Your task to perform on an android device: turn off location history Image 0: 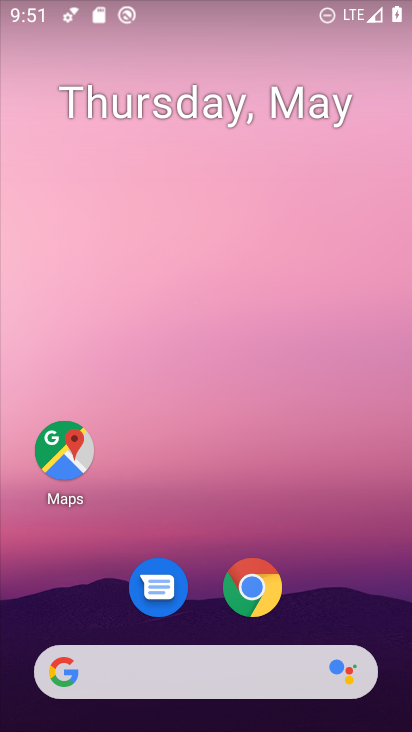
Step 0: click (58, 454)
Your task to perform on an android device: turn off location history Image 1: 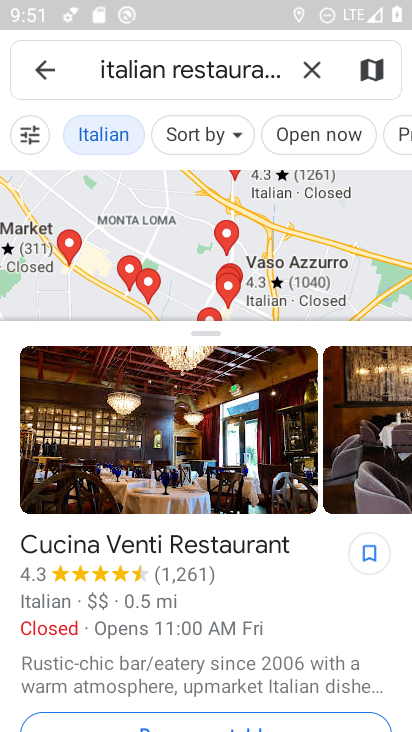
Step 1: click (309, 69)
Your task to perform on an android device: turn off location history Image 2: 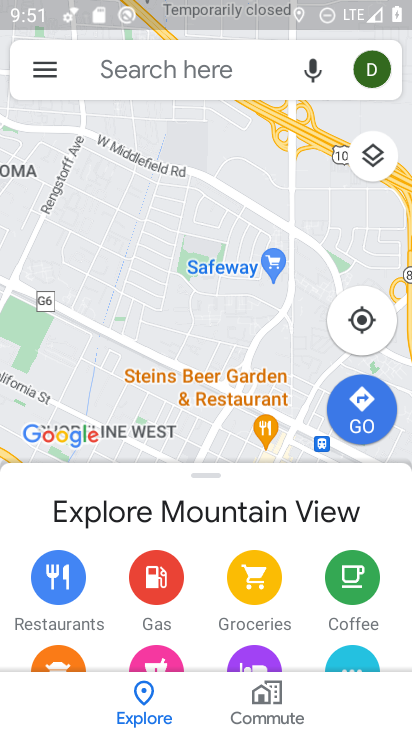
Step 2: click (50, 71)
Your task to perform on an android device: turn off location history Image 3: 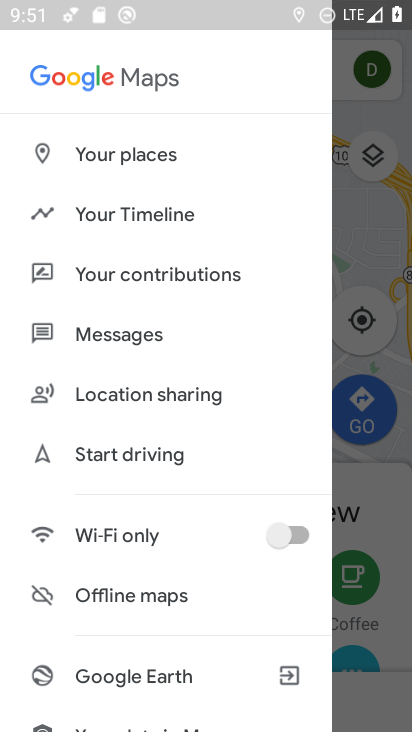
Step 3: click (125, 225)
Your task to perform on an android device: turn off location history Image 4: 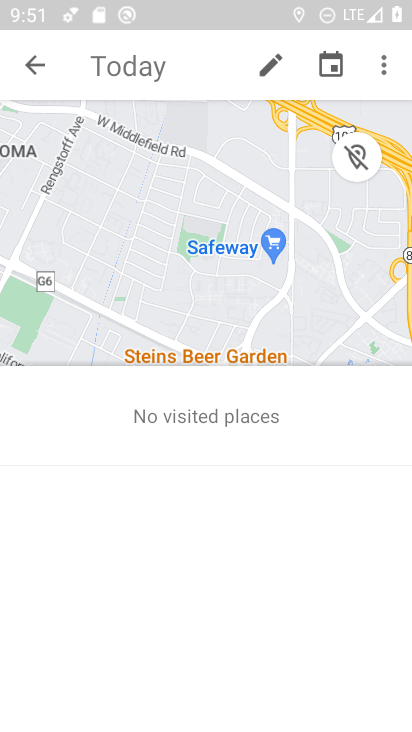
Step 4: click (387, 70)
Your task to perform on an android device: turn off location history Image 5: 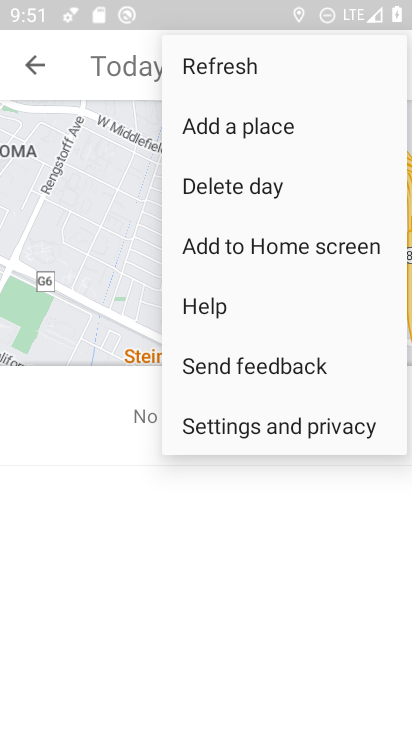
Step 5: click (239, 429)
Your task to perform on an android device: turn off location history Image 6: 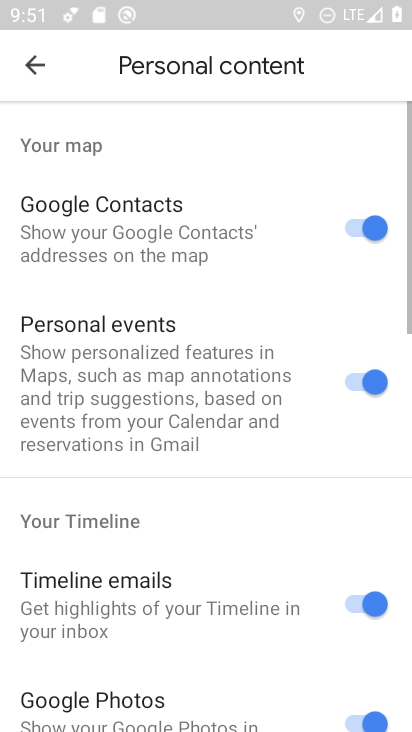
Step 6: drag from (130, 605) to (157, 238)
Your task to perform on an android device: turn off location history Image 7: 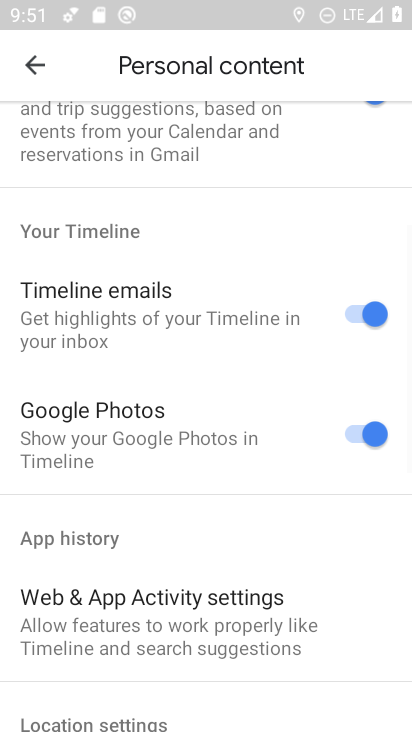
Step 7: drag from (115, 617) to (124, 199)
Your task to perform on an android device: turn off location history Image 8: 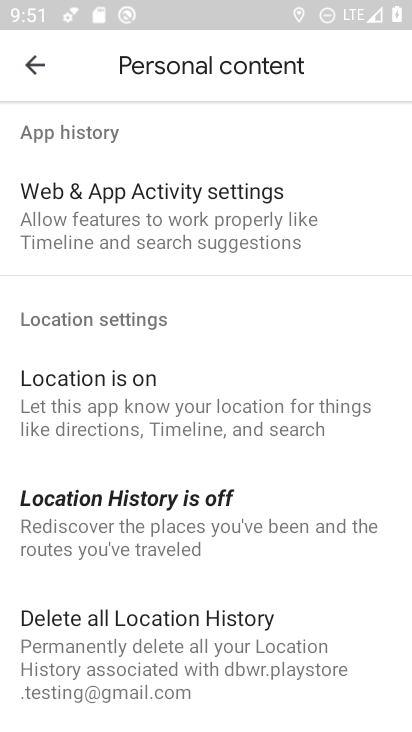
Step 8: click (103, 526)
Your task to perform on an android device: turn off location history Image 9: 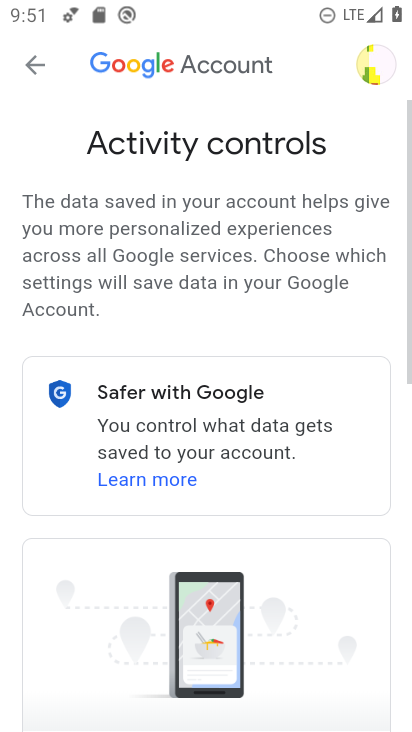
Step 9: drag from (206, 588) to (211, 202)
Your task to perform on an android device: turn off location history Image 10: 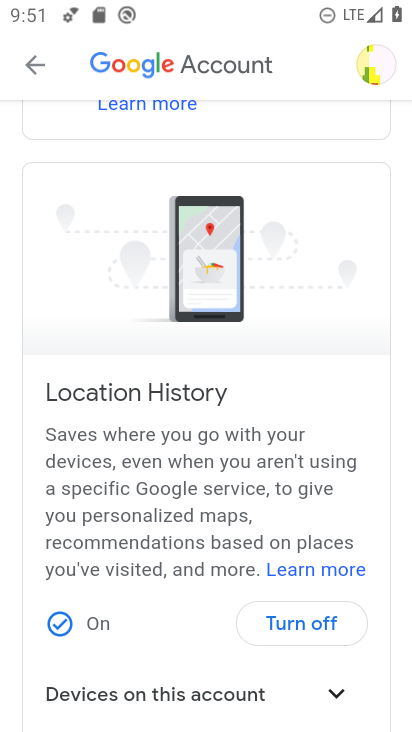
Step 10: click (313, 626)
Your task to perform on an android device: turn off location history Image 11: 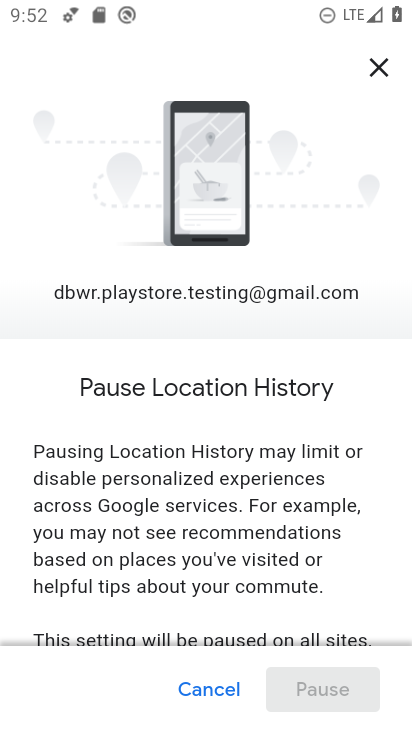
Step 11: drag from (256, 604) to (230, 145)
Your task to perform on an android device: turn off location history Image 12: 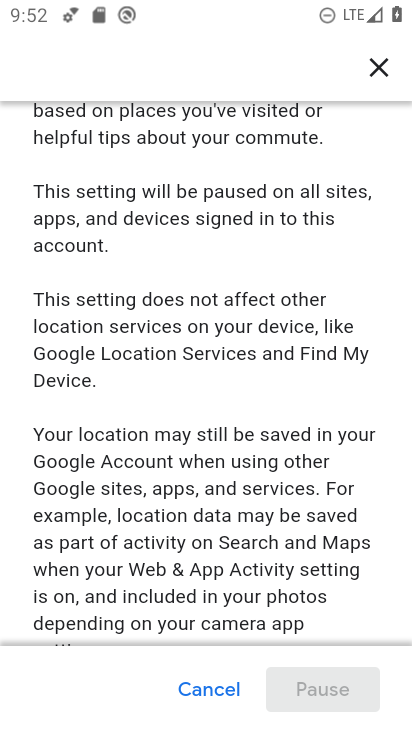
Step 12: drag from (218, 592) to (200, 126)
Your task to perform on an android device: turn off location history Image 13: 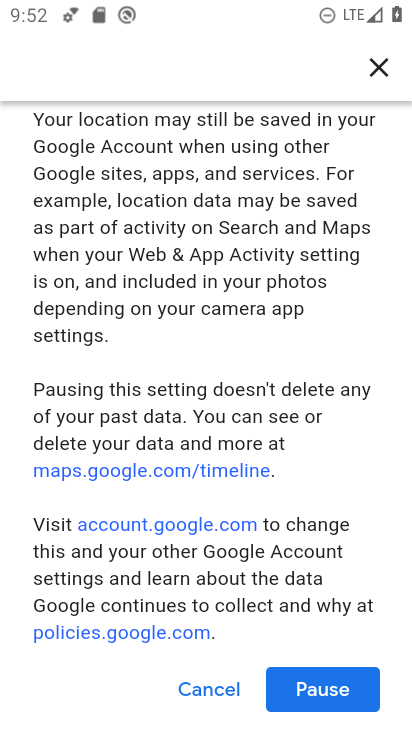
Step 13: click (318, 700)
Your task to perform on an android device: turn off location history Image 14: 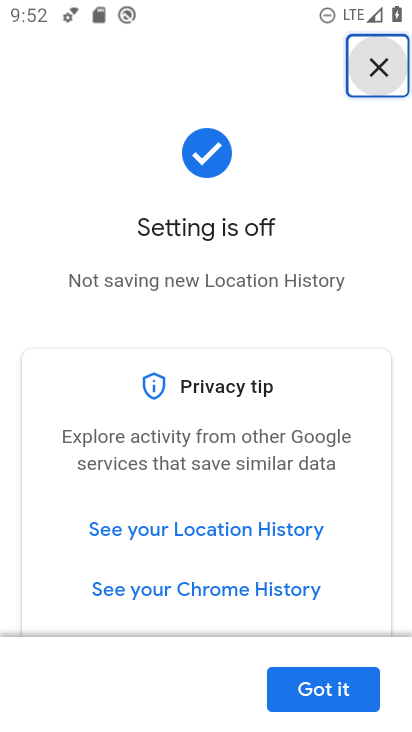
Step 14: click (318, 700)
Your task to perform on an android device: turn off location history Image 15: 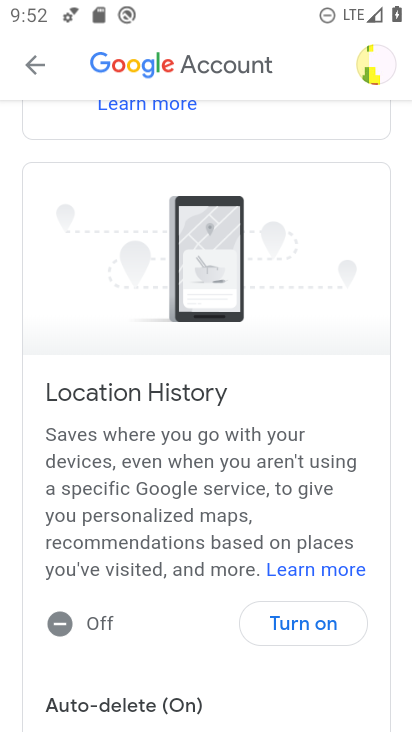
Step 15: task complete